Your task to perform on an android device: toggle notification dots Image 0: 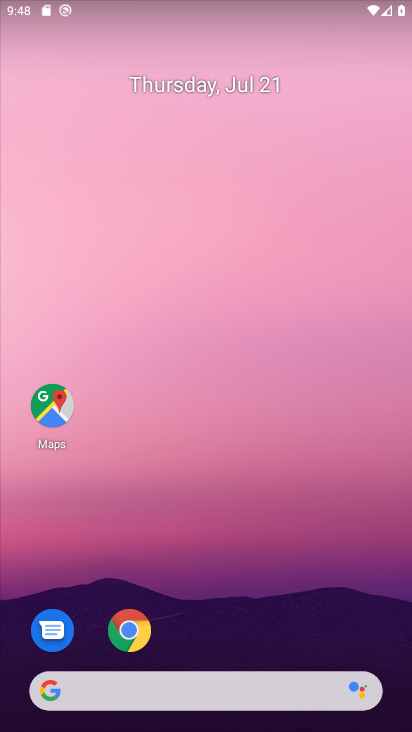
Step 0: drag from (225, 660) to (410, 148)
Your task to perform on an android device: toggle notification dots Image 1: 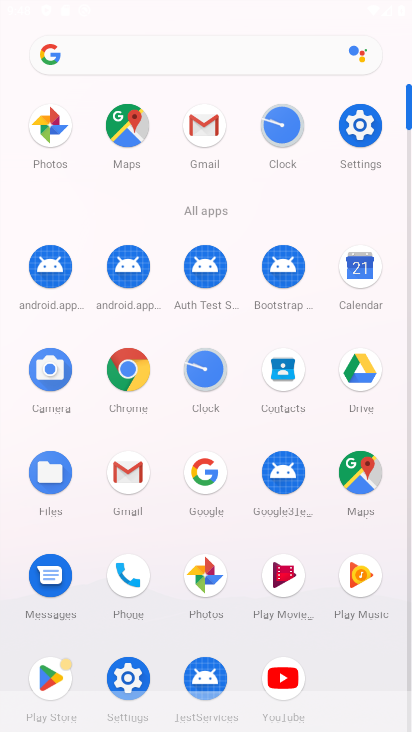
Step 1: click (365, 138)
Your task to perform on an android device: toggle notification dots Image 2: 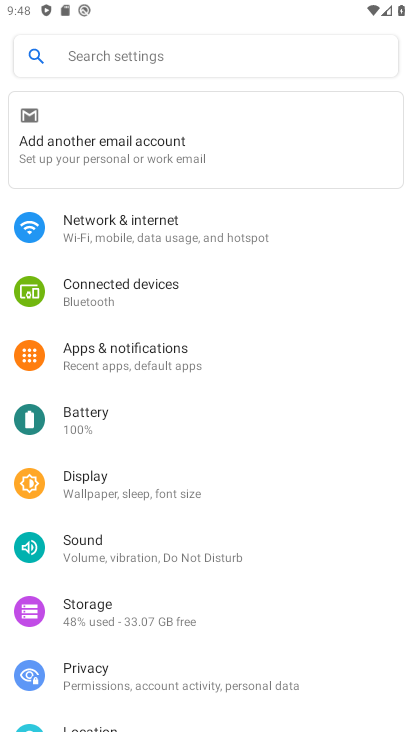
Step 2: click (86, 363)
Your task to perform on an android device: toggle notification dots Image 3: 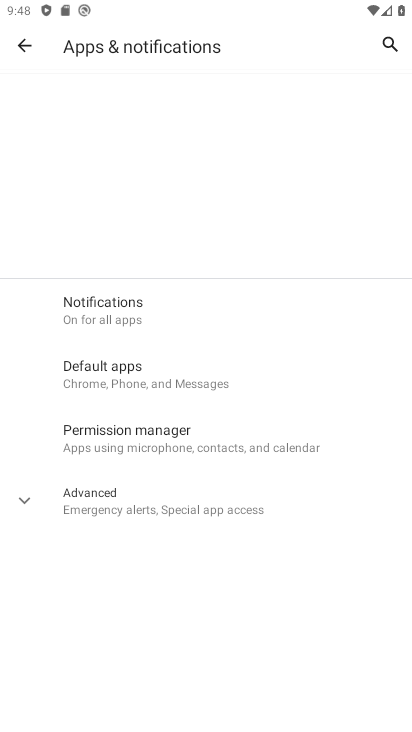
Step 3: click (128, 307)
Your task to perform on an android device: toggle notification dots Image 4: 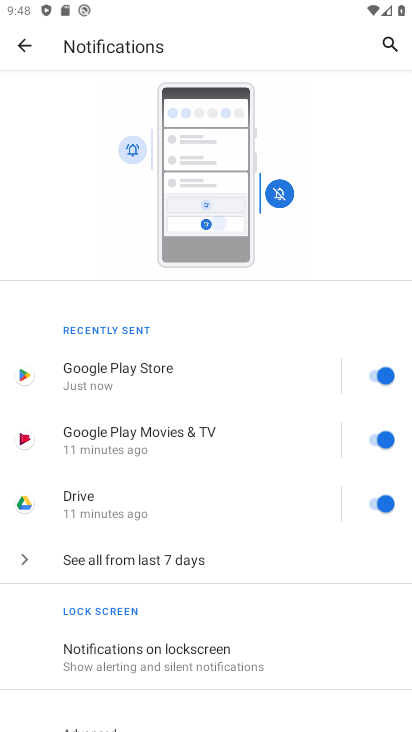
Step 4: drag from (184, 539) to (149, 179)
Your task to perform on an android device: toggle notification dots Image 5: 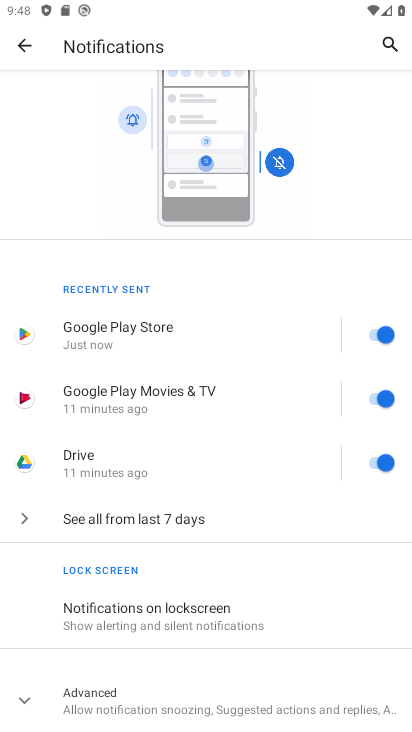
Step 5: click (201, 683)
Your task to perform on an android device: toggle notification dots Image 6: 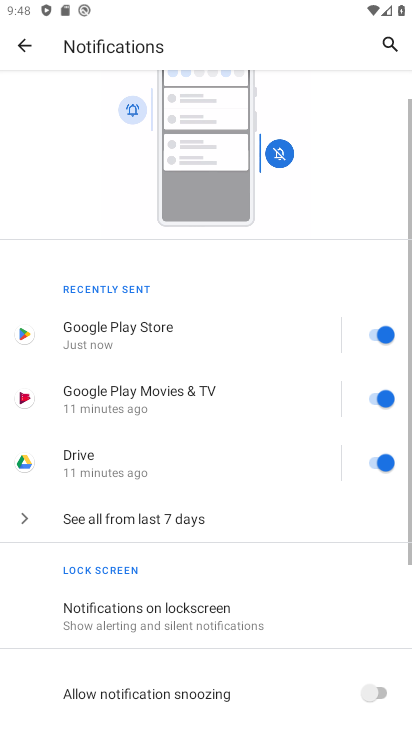
Step 6: drag from (201, 668) to (165, 229)
Your task to perform on an android device: toggle notification dots Image 7: 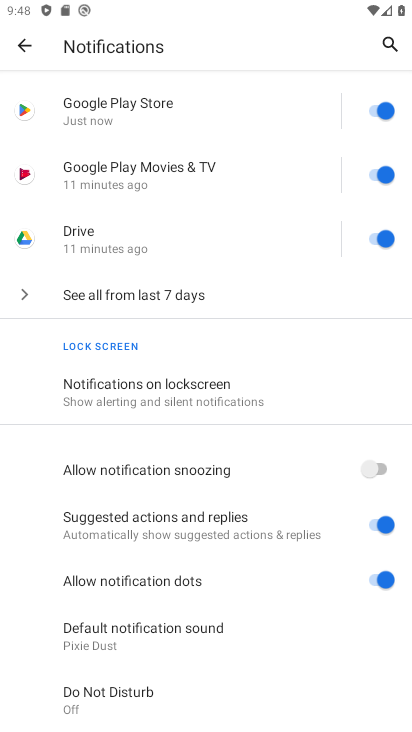
Step 7: click (375, 582)
Your task to perform on an android device: toggle notification dots Image 8: 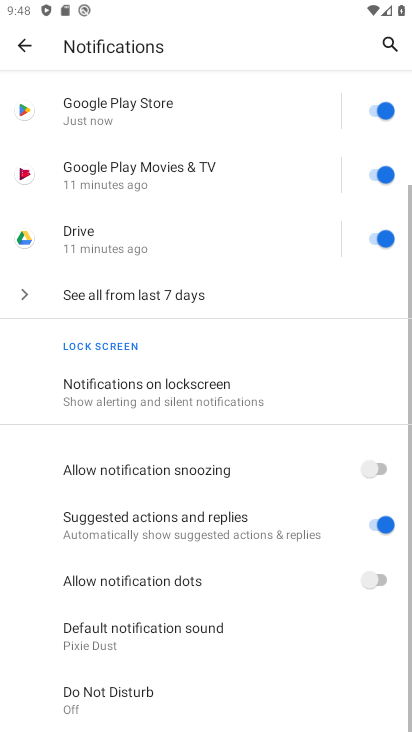
Step 8: task complete